Your task to perform on an android device: check data usage Image 0: 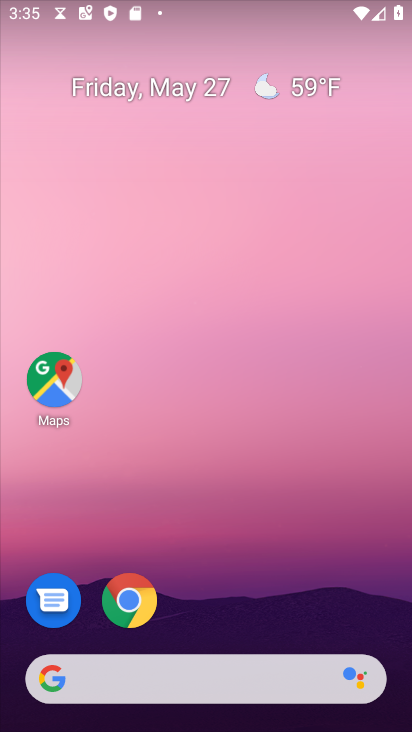
Step 0: drag from (277, 582) to (192, 44)
Your task to perform on an android device: check data usage Image 1: 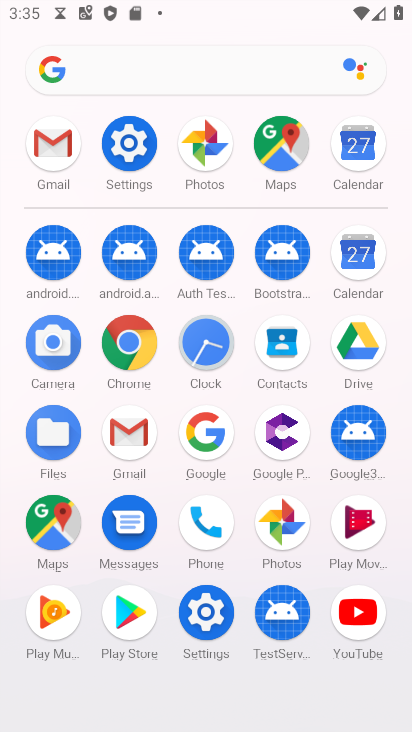
Step 1: click (129, 142)
Your task to perform on an android device: check data usage Image 2: 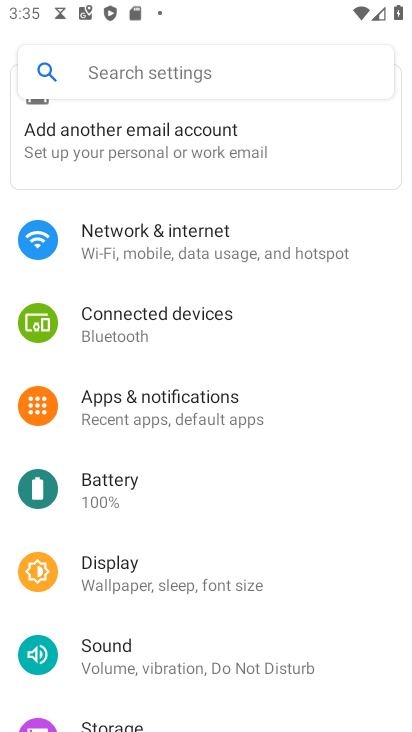
Step 2: click (152, 253)
Your task to perform on an android device: check data usage Image 3: 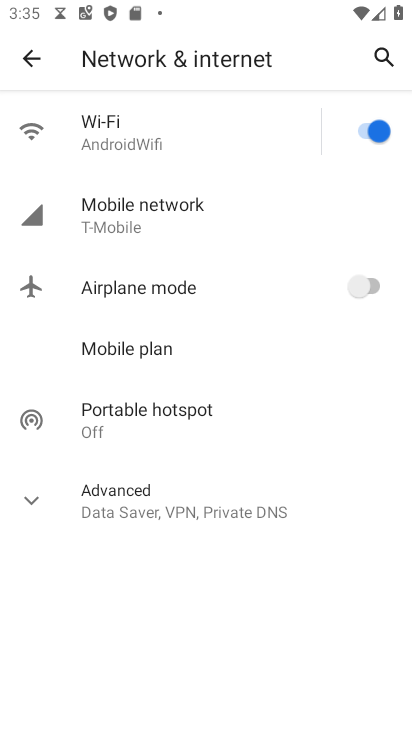
Step 3: click (150, 197)
Your task to perform on an android device: check data usage Image 4: 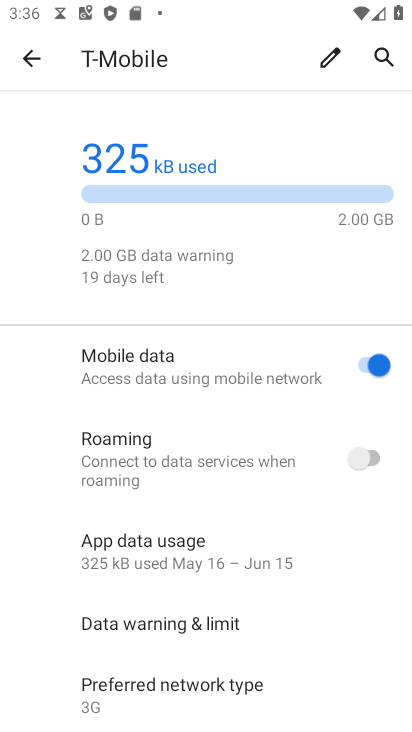
Step 4: task complete